Your task to perform on an android device: Open Reddit.com Image 0: 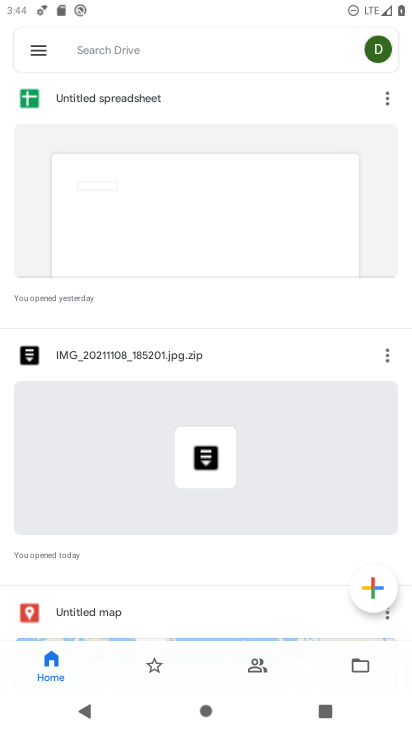
Step 0: press home button
Your task to perform on an android device: Open Reddit.com Image 1: 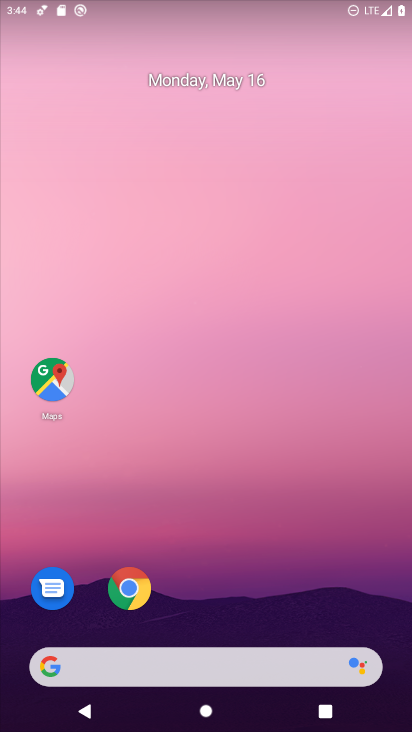
Step 1: click (134, 592)
Your task to perform on an android device: Open Reddit.com Image 2: 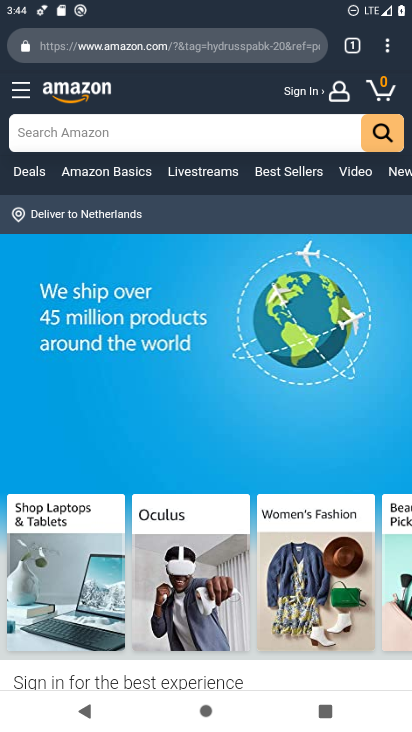
Step 2: click (112, 51)
Your task to perform on an android device: Open Reddit.com Image 3: 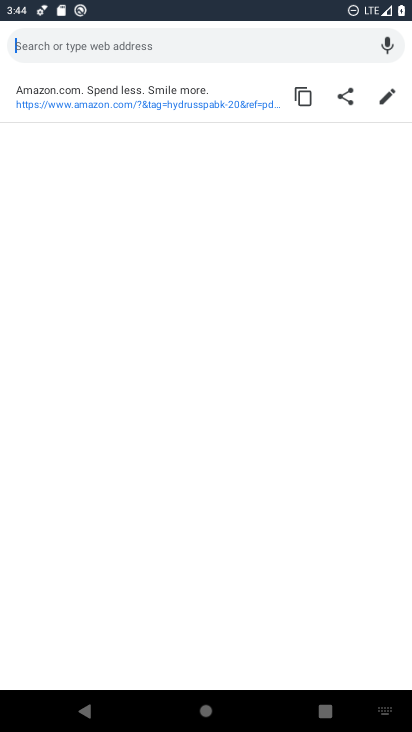
Step 3: type "reddit.com"
Your task to perform on an android device: Open Reddit.com Image 4: 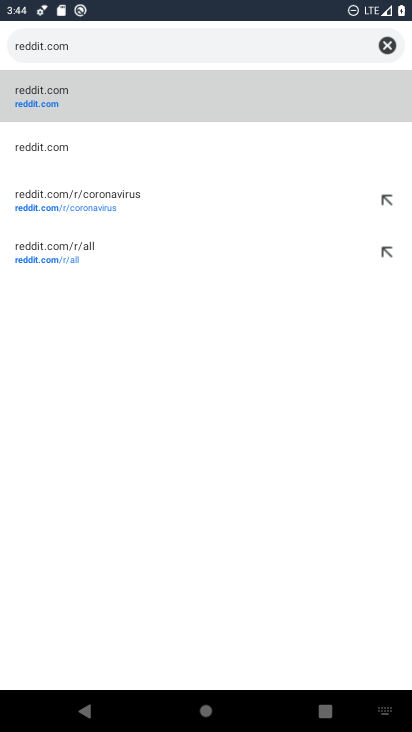
Step 4: click (32, 104)
Your task to perform on an android device: Open Reddit.com Image 5: 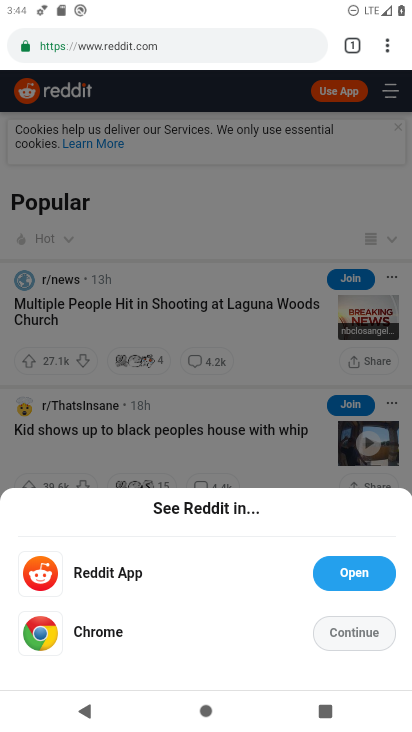
Step 5: task complete